Your task to perform on an android device: Search for Mexican restaurants on Maps Image 0: 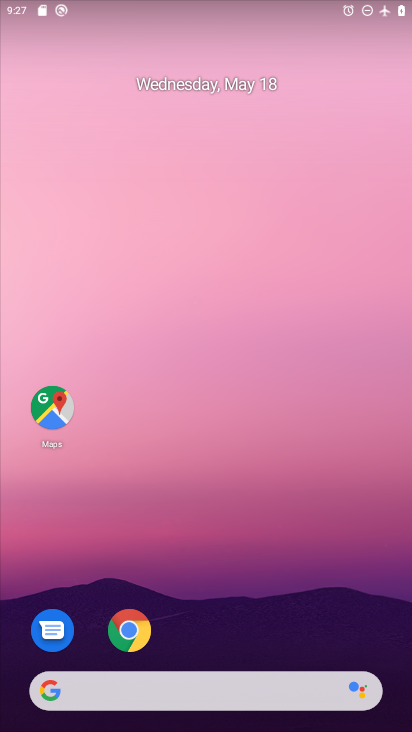
Step 0: click (55, 412)
Your task to perform on an android device: Search for Mexican restaurants on Maps Image 1: 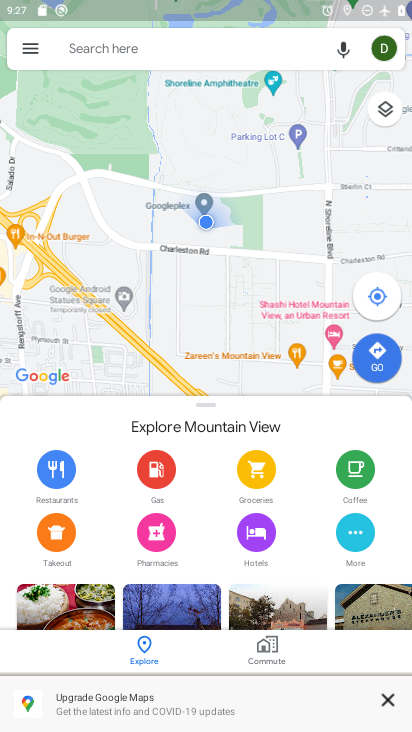
Step 1: click (200, 60)
Your task to perform on an android device: Search for Mexican restaurants on Maps Image 2: 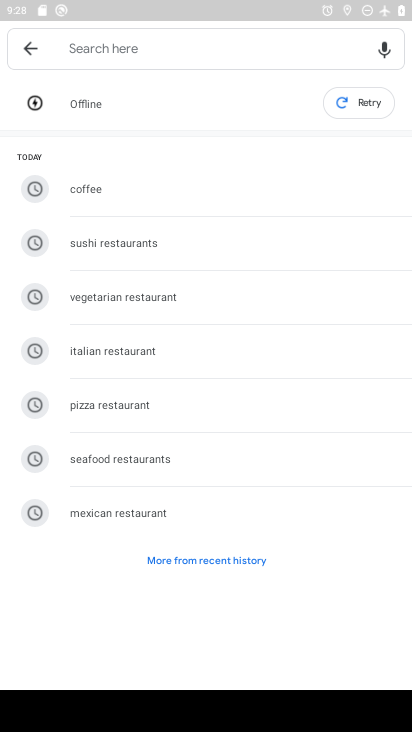
Step 2: click (122, 505)
Your task to perform on an android device: Search for Mexican restaurants on Maps Image 3: 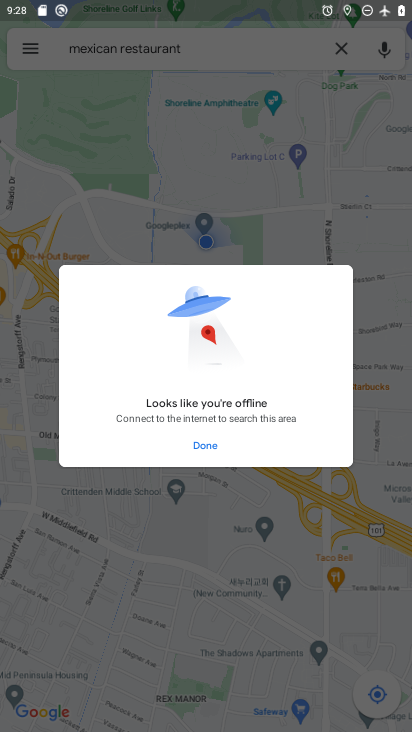
Step 3: click (209, 447)
Your task to perform on an android device: Search for Mexican restaurants on Maps Image 4: 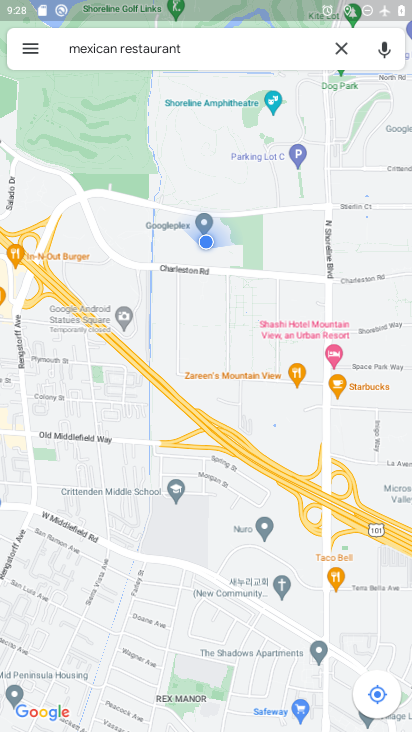
Step 4: task complete